Your task to perform on an android device: Go to privacy settings Image 0: 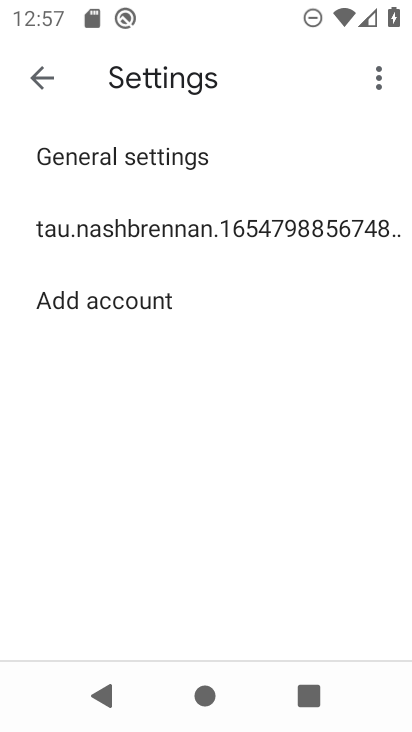
Step 0: press home button
Your task to perform on an android device: Go to privacy settings Image 1: 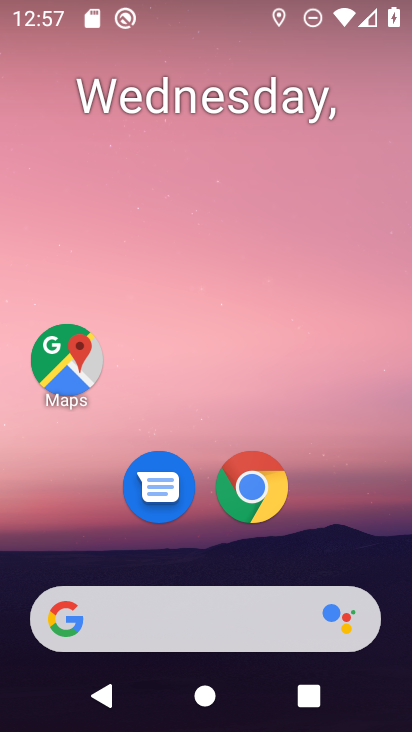
Step 1: drag from (366, 543) to (365, 101)
Your task to perform on an android device: Go to privacy settings Image 2: 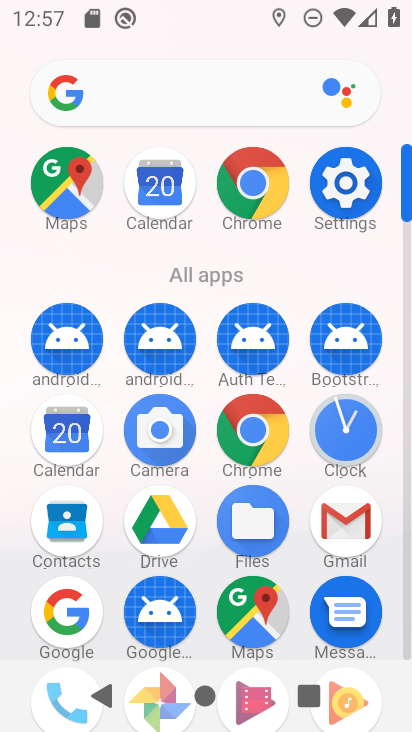
Step 2: click (365, 186)
Your task to perform on an android device: Go to privacy settings Image 3: 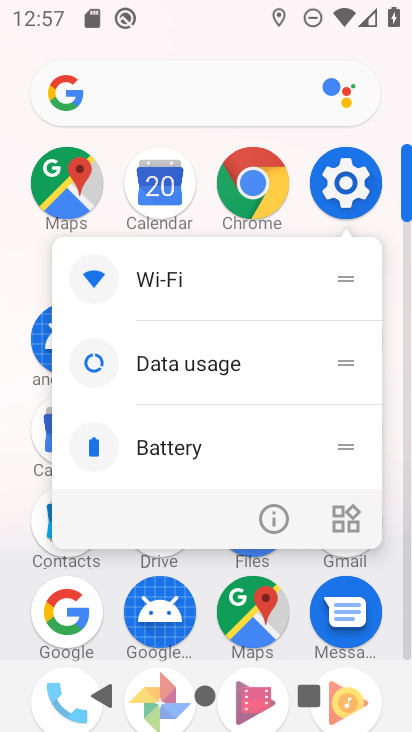
Step 3: click (365, 186)
Your task to perform on an android device: Go to privacy settings Image 4: 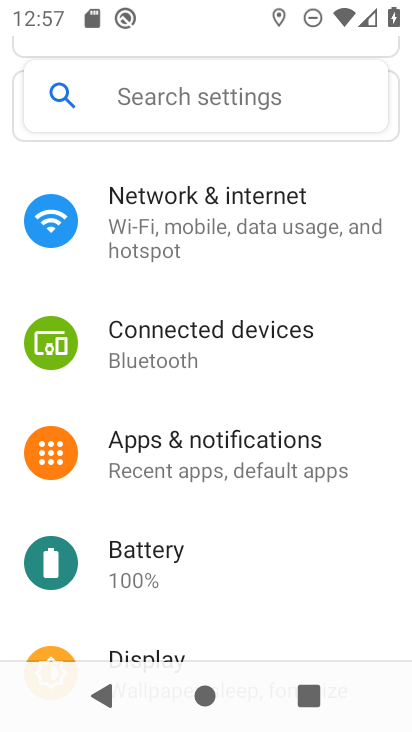
Step 4: drag from (349, 539) to (357, 361)
Your task to perform on an android device: Go to privacy settings Image 5: 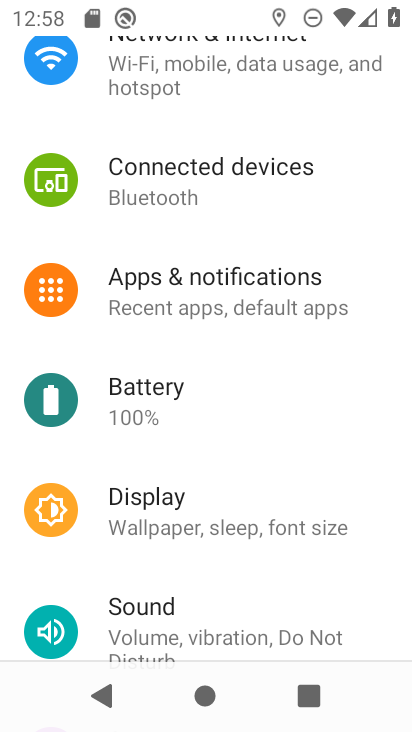
Step 5: drag from (359, 558) to (374, 440)
Your task to perform on an android device: Go to privacy settings Image 6: 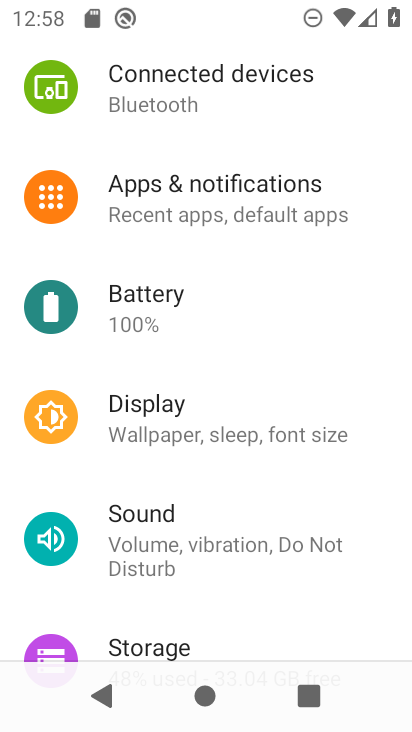
Step 6: drag from (334, 608) to (338, 440)
Your task to perform on an android device: Go to privacy settings Image 7: 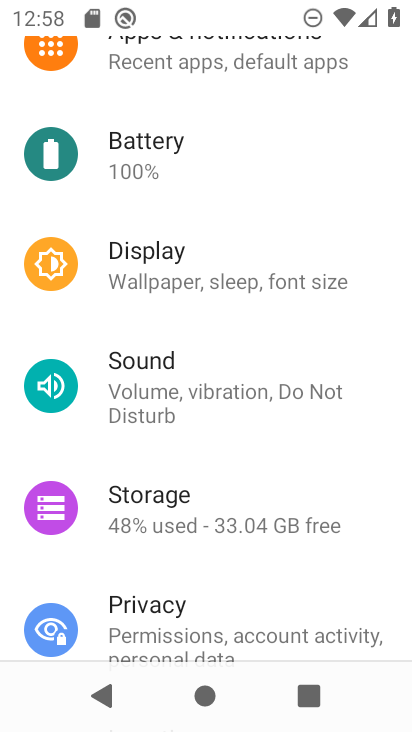
Step 7: drag from (328, 570) to (328, 451)
Your task to perform on an android device: Go to privacy settings Image 8: 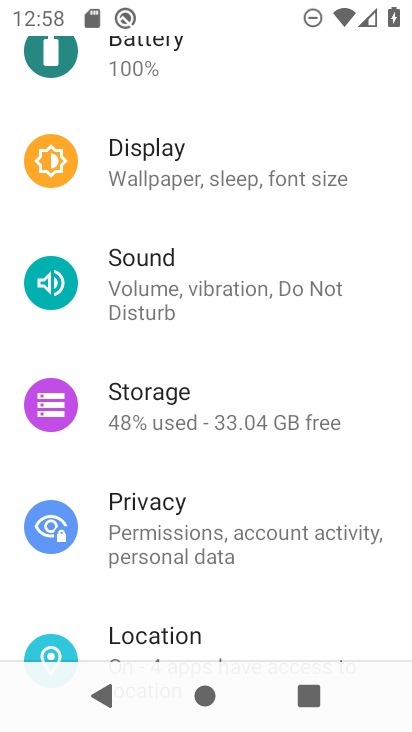
Step 8: drag from (329, 568) to (335, 409)
Your task to perform on an android device: Go to privacy settings Image 9: 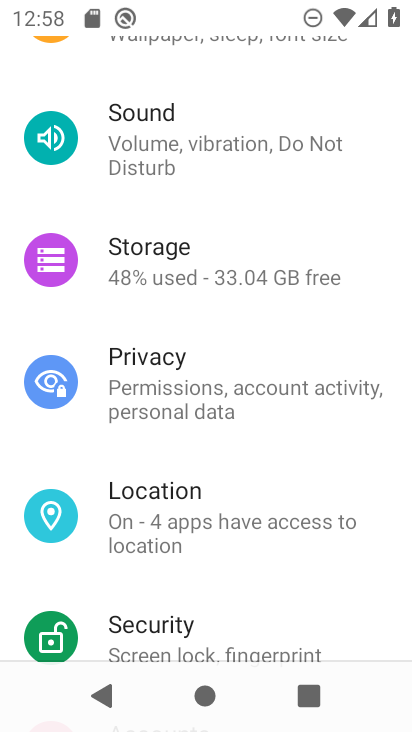
Step 9: drag from (320, 576) to (326, 445)
Your task to perform on an android device: Go to privacy settings Image 10: 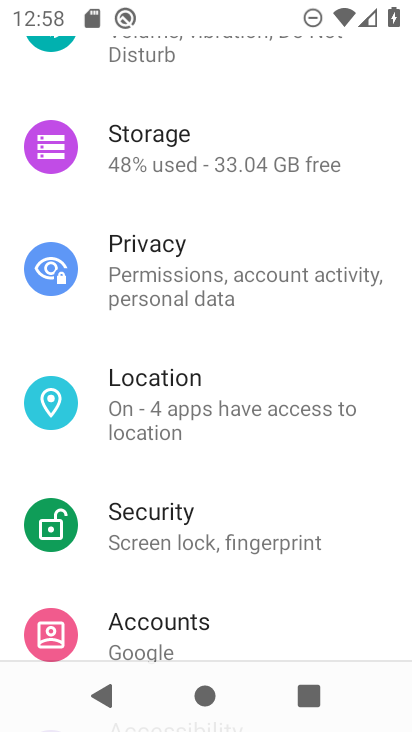
Step 10: drag from (338, 337) to (332, 502)
Your task to perform on an android device: Go to privacy settings Image 11: 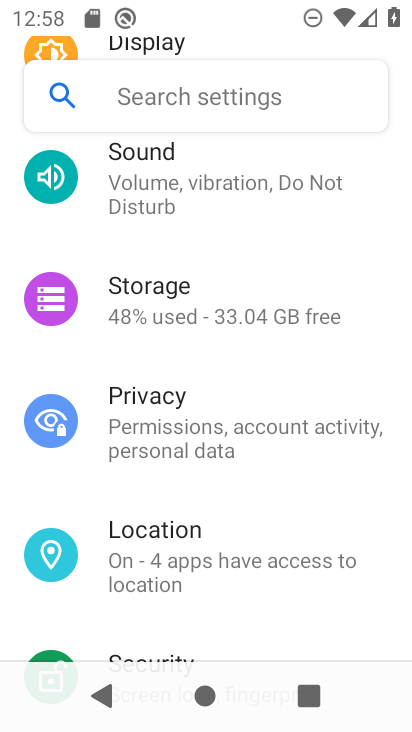
Step 11: click (254, 431)
Your task to perform on an android device: Go to privacy settings Image 12: 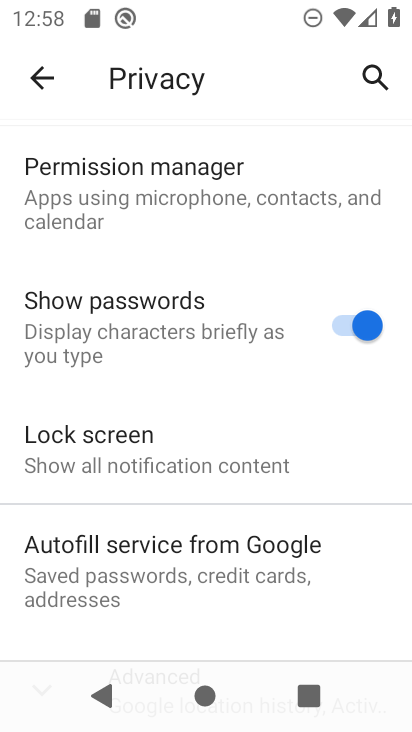
Step 12: task complete